Your task to perform on an android device: Go to Amazon Image 0: 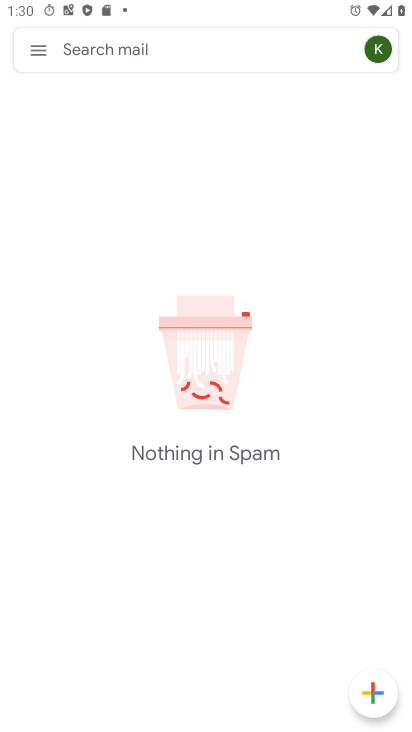
Step 0: press home button
Your task to perform on an android device: Go to Amazon Image 1: 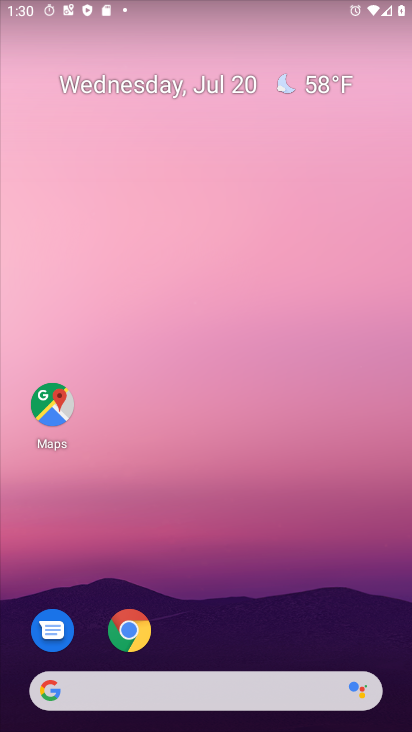
Step 1: click (137, 622)
Your task to perform on an android device: Go to Amazon Image 2: 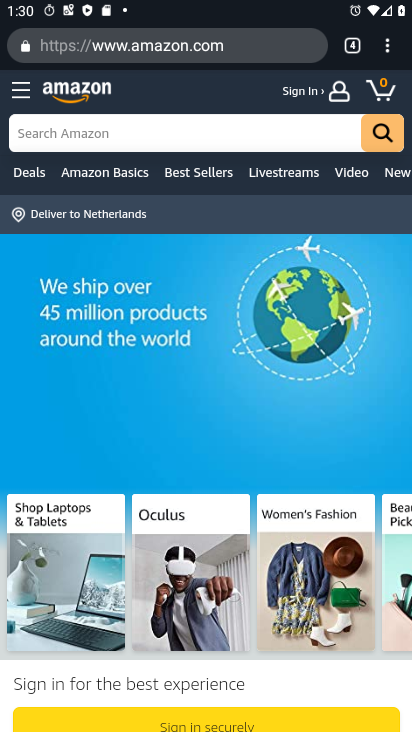
Step 2: task complete